Your task to perform on an android device: delete the emails in spam in the gmail app Image 0: 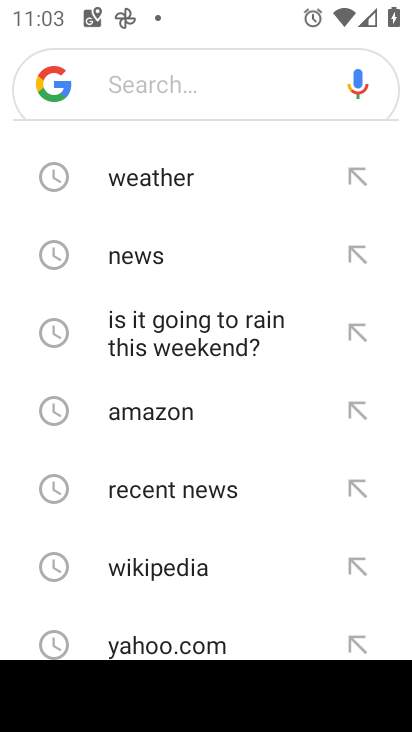
Step 0: press home button
Your task to perform on an android device: delete the emails in spam in the gmail app Image 1: 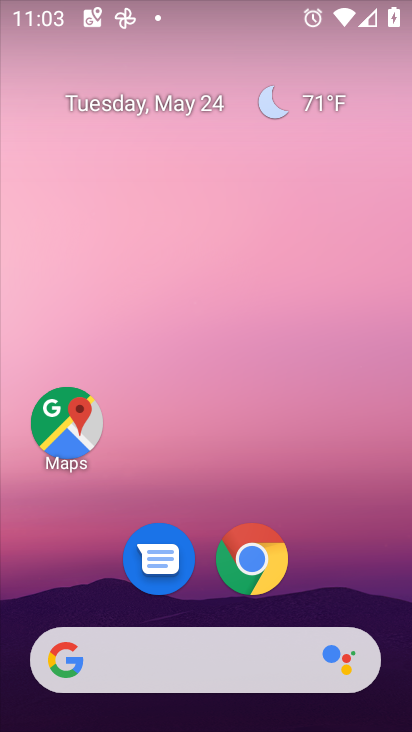
Step 1: drag from (406, 652) to (306, 63)
Your task to perform on an android device: delete the emails in spam in the gmail app Image 2: 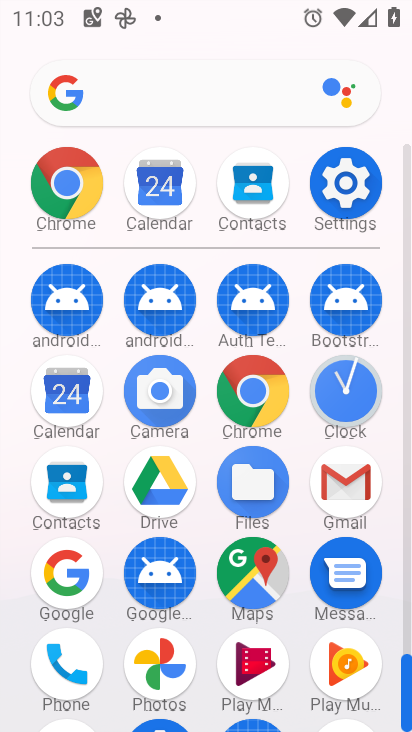
Step 2: click (350, 494)
Your task to perform on an android device: delete the emails in spam in the gmail app Image 3: 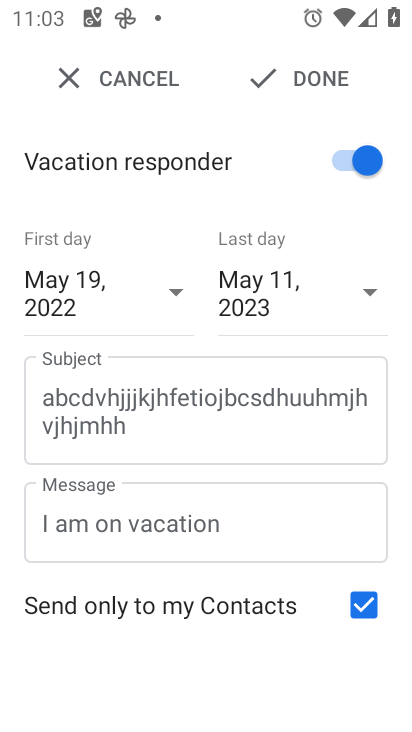
Step 3: press back button
Your task to perform on an android device: delete the emails in spam in the gmail app Image 4: 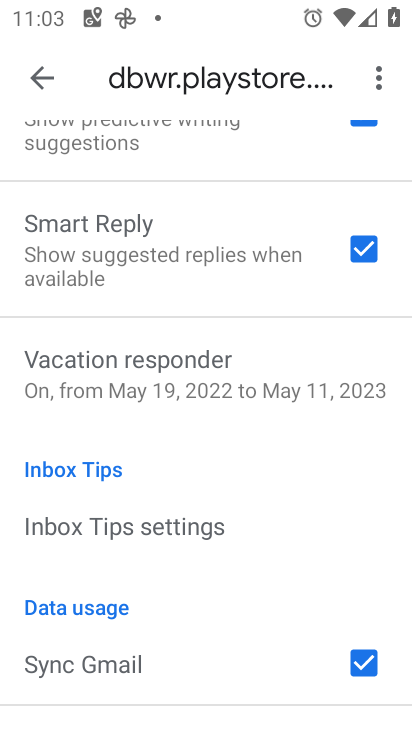
Step 4: press back button
Your task to perform on an android device: delete the emails in spam in the gmail app Image 5: 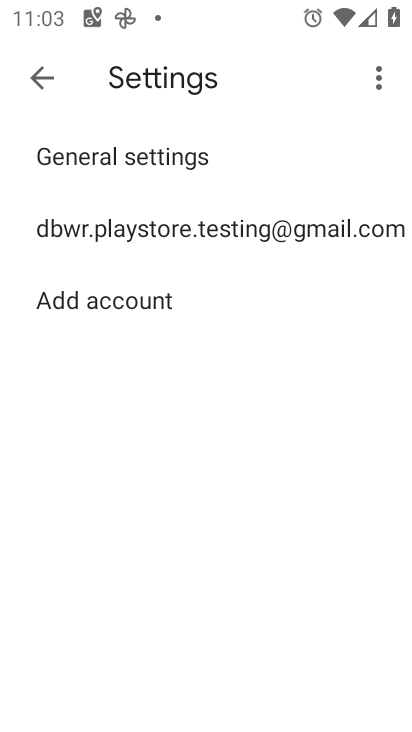
Step 5: press back button
Your task to perform on an android device: delete the emails in spam in the gmail app Image 6: 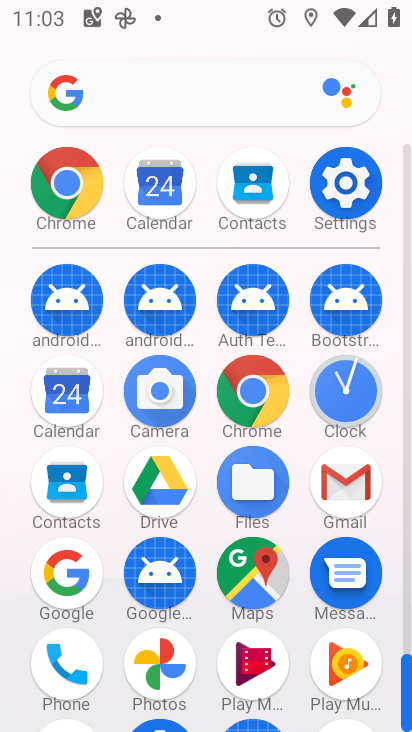
Step 6: click (340, 478)
Your task to perform on an android device: delete the emails in spam in the gmail app Image 7: 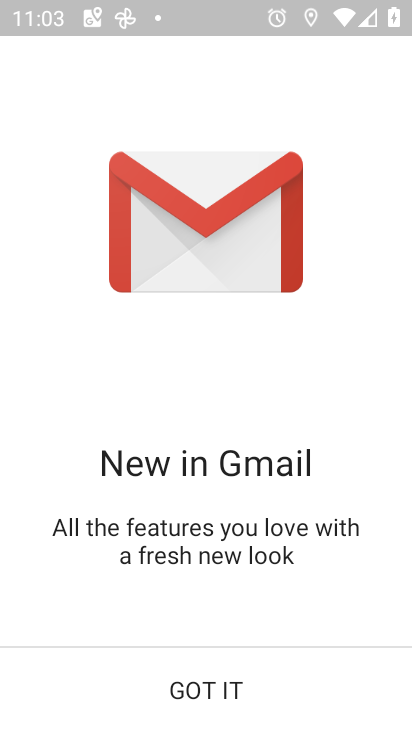
Step 7: click (178, 700)
Your task to perform on an android device: delete the emails in spam in the gmail app Image 8: 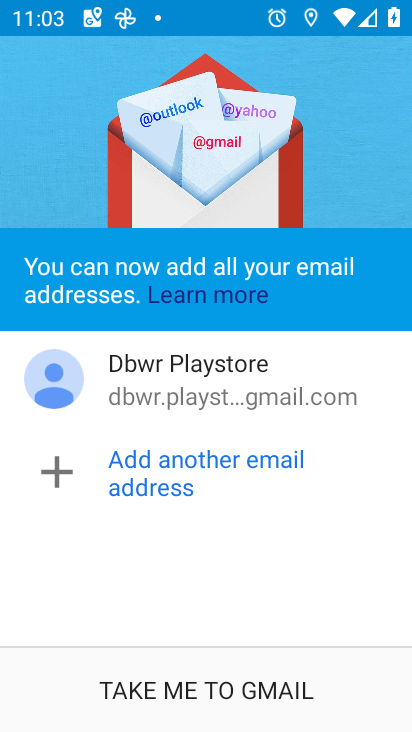
Step 8: click (177, 693)
Your task to perform on an android device: delete the emails in spam in the gmail app Image 9: 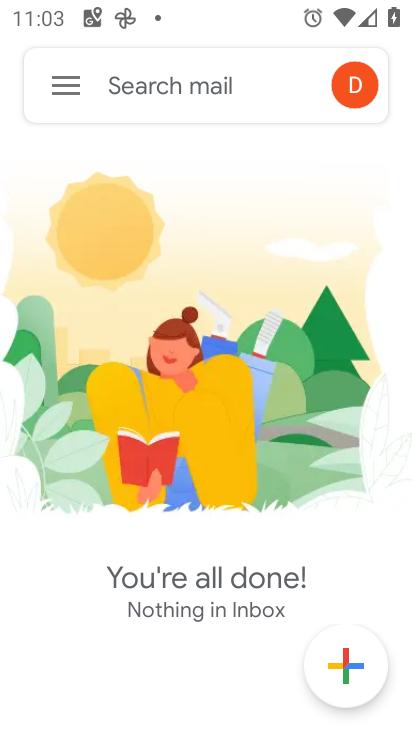
Step 9: task complete